Your task to perform on an android device: Go to Android settings Image 0: 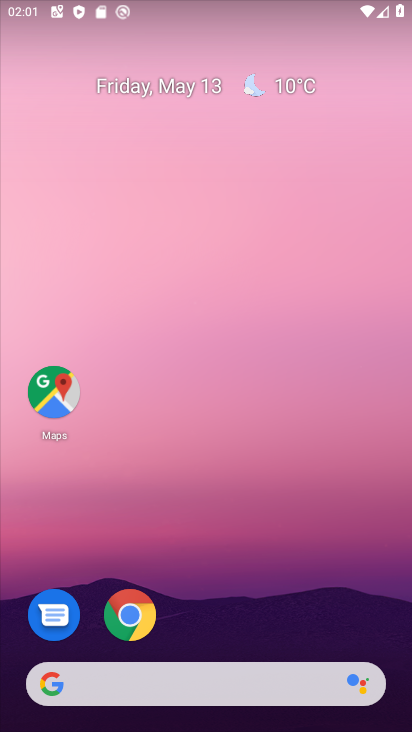
Step 0: drag from (230, 593) to (77, 126)
Your task to perform on an android device: Go to Android settings Image 1: 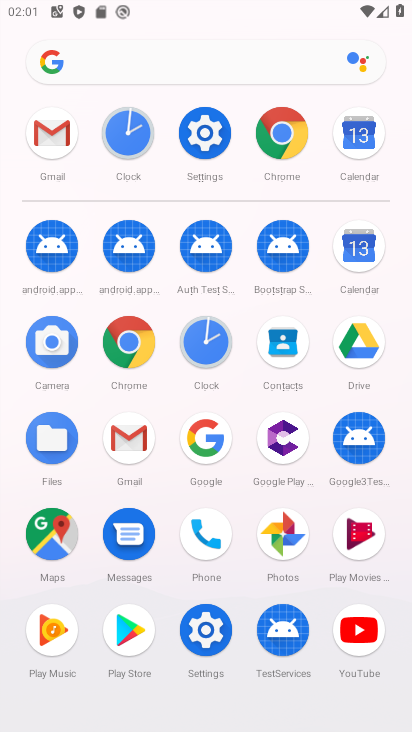
Step 1: click (208, 639)
Your task to perform on an android device: Go to Android settings Image 2: 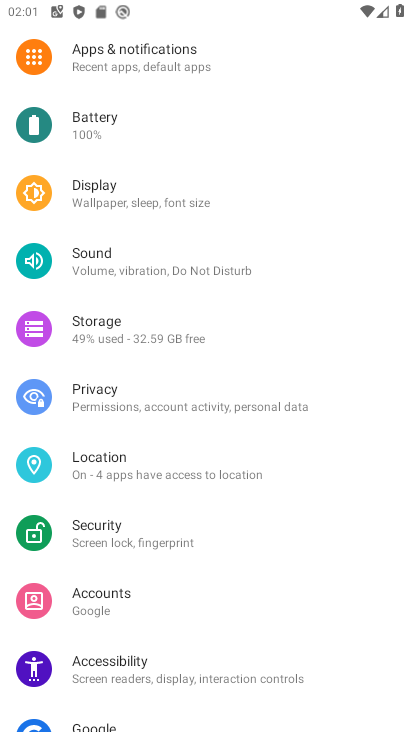
Step 2: drag from (323, 677) to (306, 302)
Your task to perform on an android device: Go to Android settings Image 3: 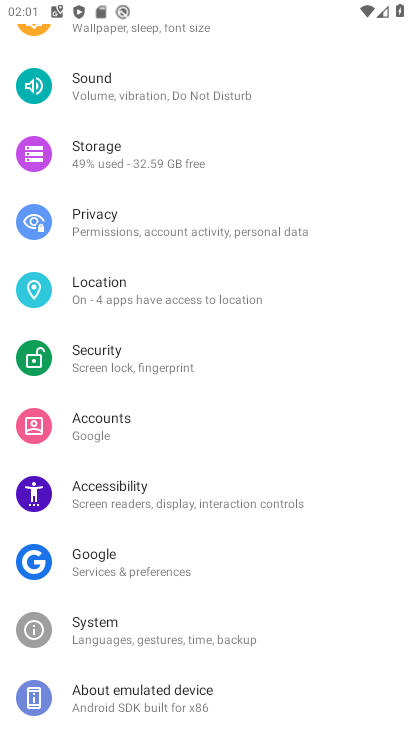
Step 3: click (175, 685)
Your task to perform on an android device: Go to Android settings Image 4: 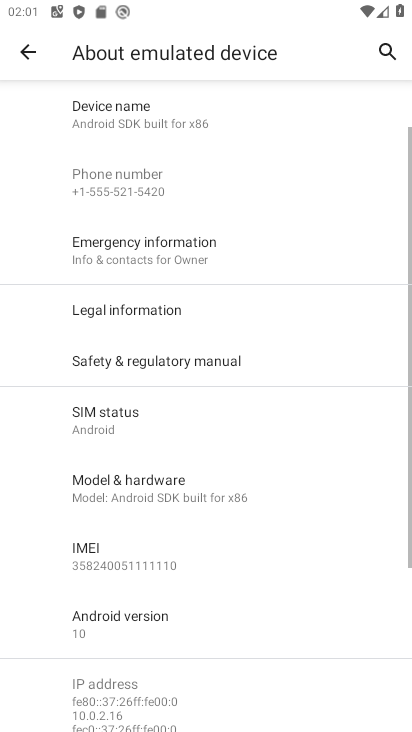
Step 4: drag from (175, 685) to (170, 551)
Your task to perform on an android device: Go to Android settings Image 5: 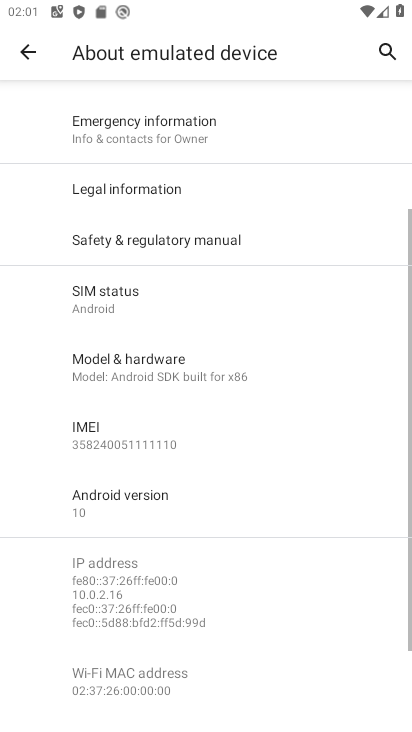
Step 5: click (134, 534)
Your task to perform on an android device: Go to Android settings Image 6: 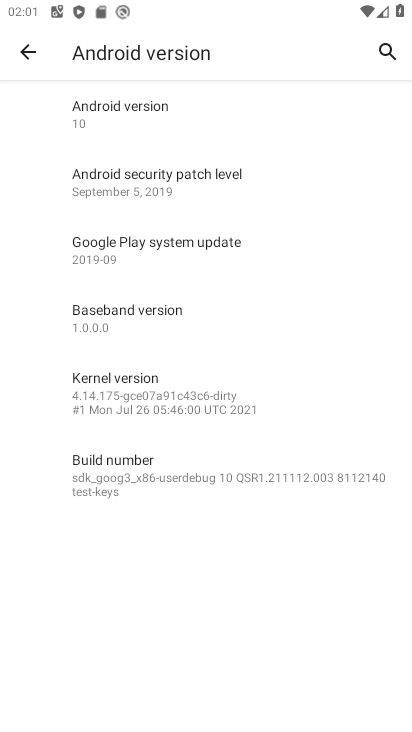
Step 6: task complete